Your task to perform on an android device: open chrome privacy settings Image 0: 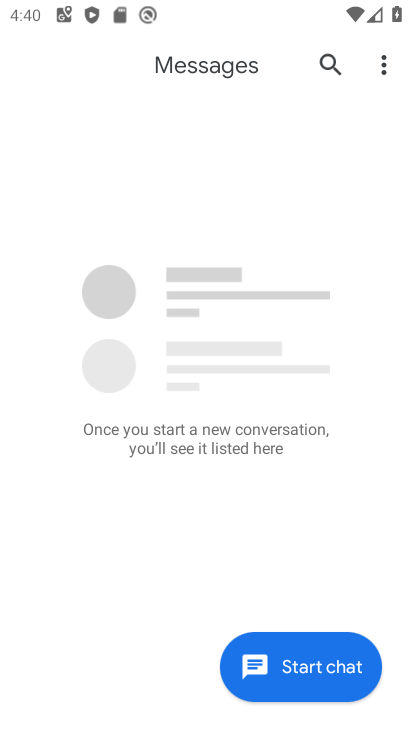
Step 0: press back button
Your task to perform on an android device: open chrome privacy settings Image 1: 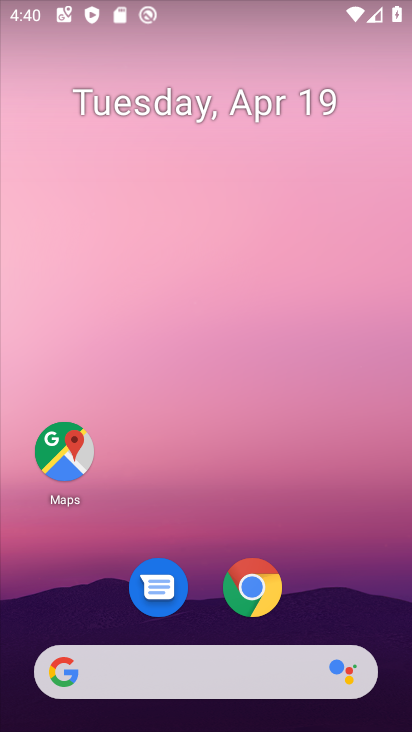
Step 1: drag from (358, 528) to (235, 26)
Your task to perform on an android device: open chrome privacy settings Image 2: 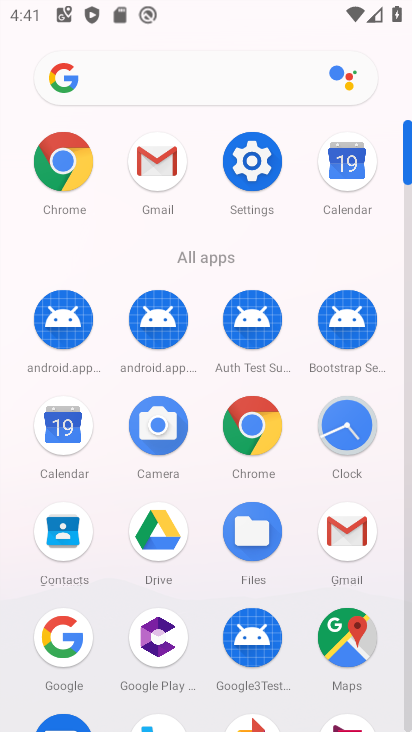
Step 2: click (69, 156)
Your task to perform on an android device: open chrome privacy settings Image 3: 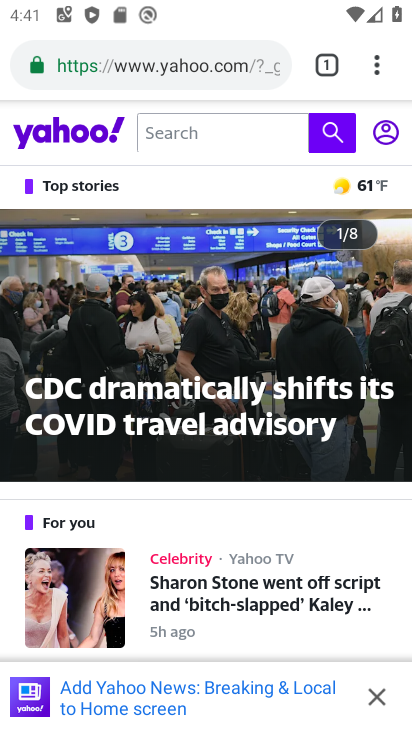
Step 3: drag from (377, 59) to (207, 634)
Your task to perform on an android device: open chrome privacy settings Image 4: 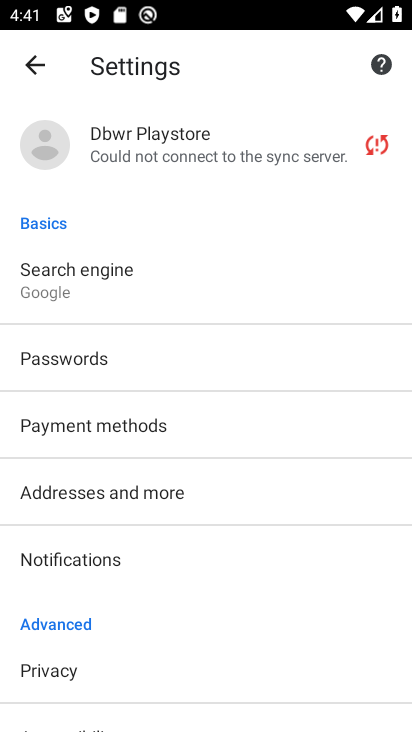
Step 4: click (148, 663)
Your task to perform on an android device: open chrome privacy settings Image 5: 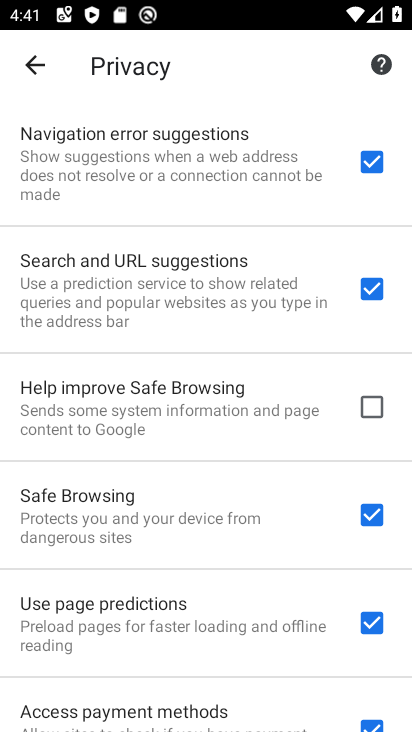
Step 5: task complete